Your task to perform on an android device: all mails in gmail Image 0: 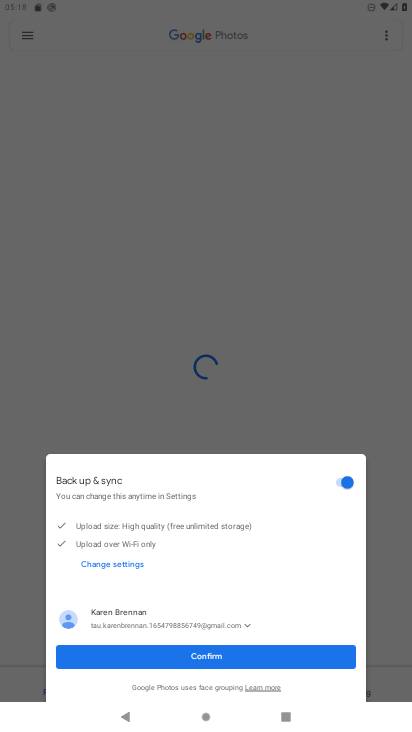
Step 0: press home button
Your task to perform on an android device: all mails in gmail Image 1: 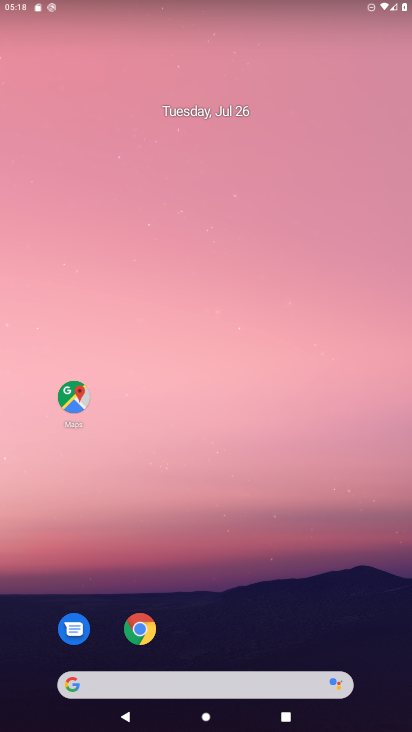
Step 1: drag from (198, 636) to (227, 138)
Your task to perform on an android device: all mails in gmail Image 2: 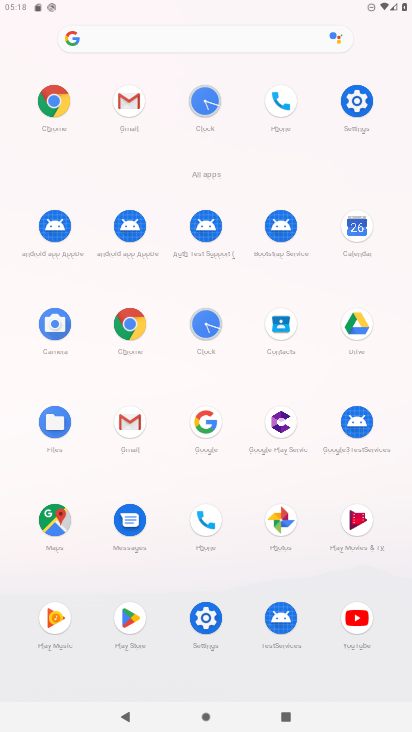
Step 2: click (129, 117)
Your task to perform on an android device: all mails in gmail Image 3: 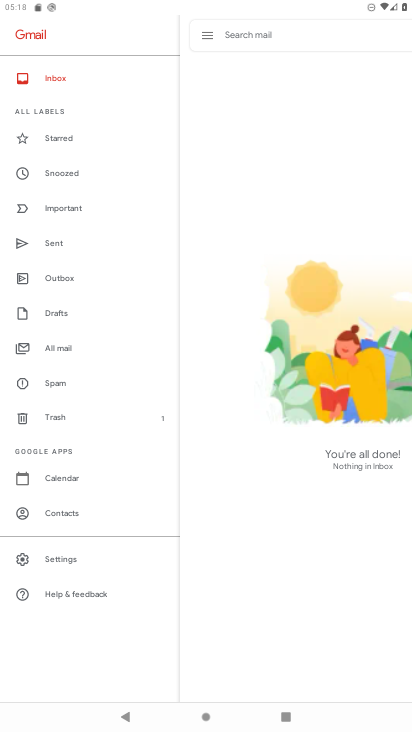
Step 3: click (58, 349)
Your task to perform on an android device: all mails in gmail Image 4: 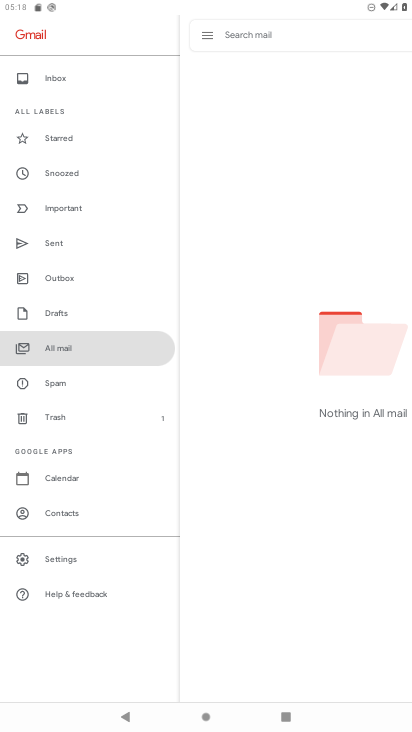
Step 4: task complete